Your task to perform on an android device: open app "ZOOM Cloud Meetings" (install if not already installed) Image 0: 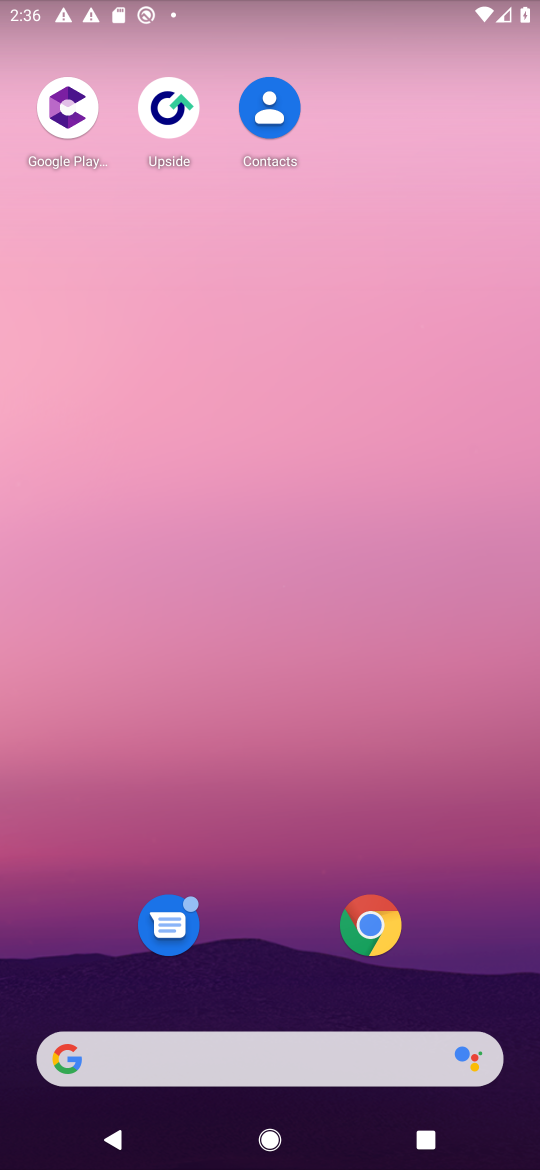
Step 0: drag from (452, 727) to (416, 6)
Your task to perform on an android device: open app "ZOOM Cloud Meetings" (install if not already installed) Image 1: 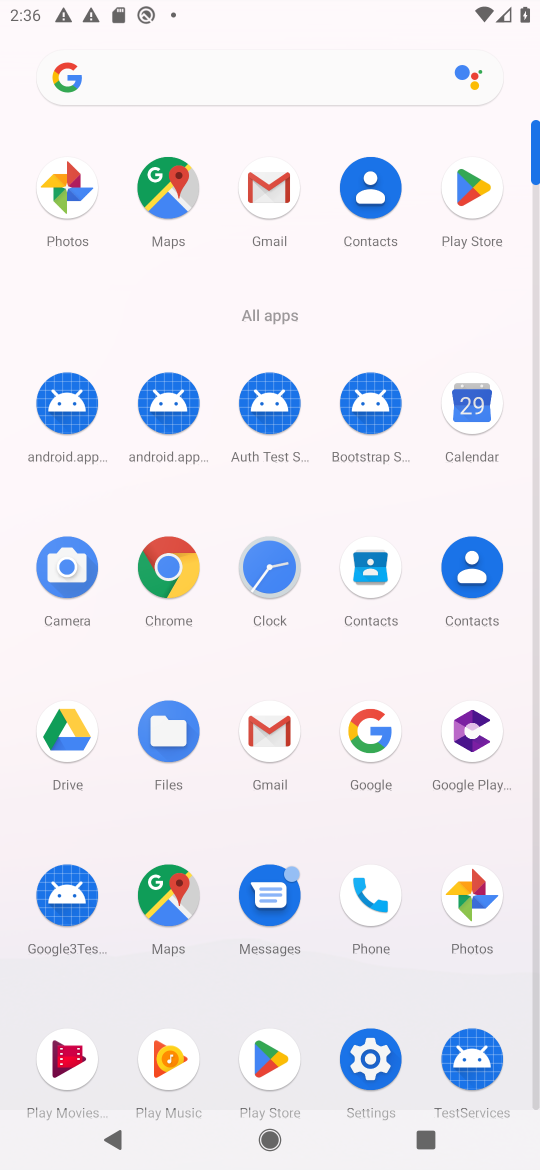
Step 1: click (482, 185)
Your task to perform on an android device: open app "ZOOM Cloud Meetings" (install if not already installed) Image 2: 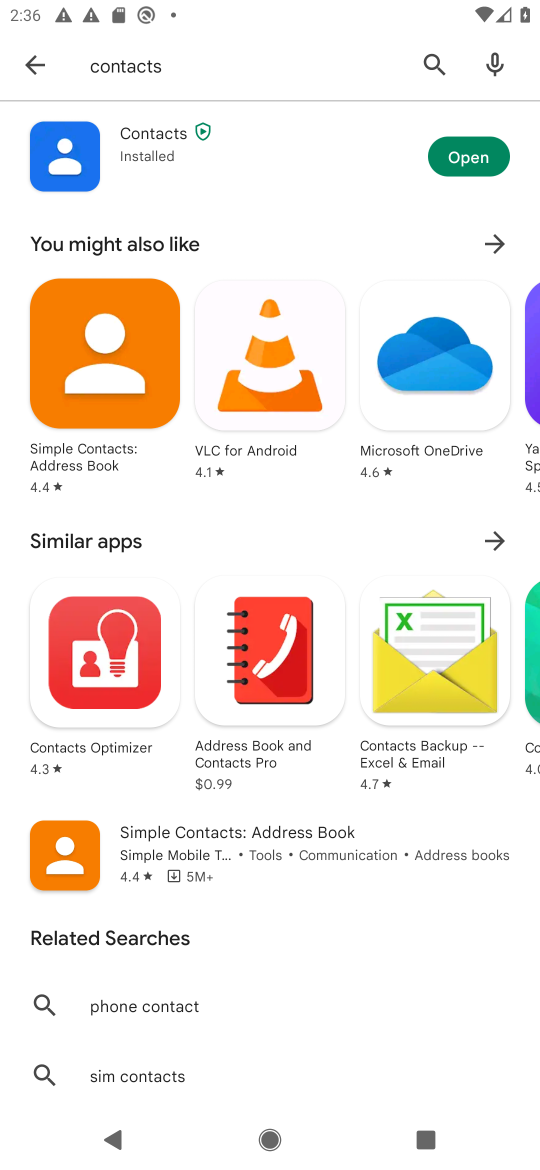
Step 2: click (427, 66)
Your task to perform on an android device: open app "ZOOM Cloud Meetings" (install if not already installed) Image 3: 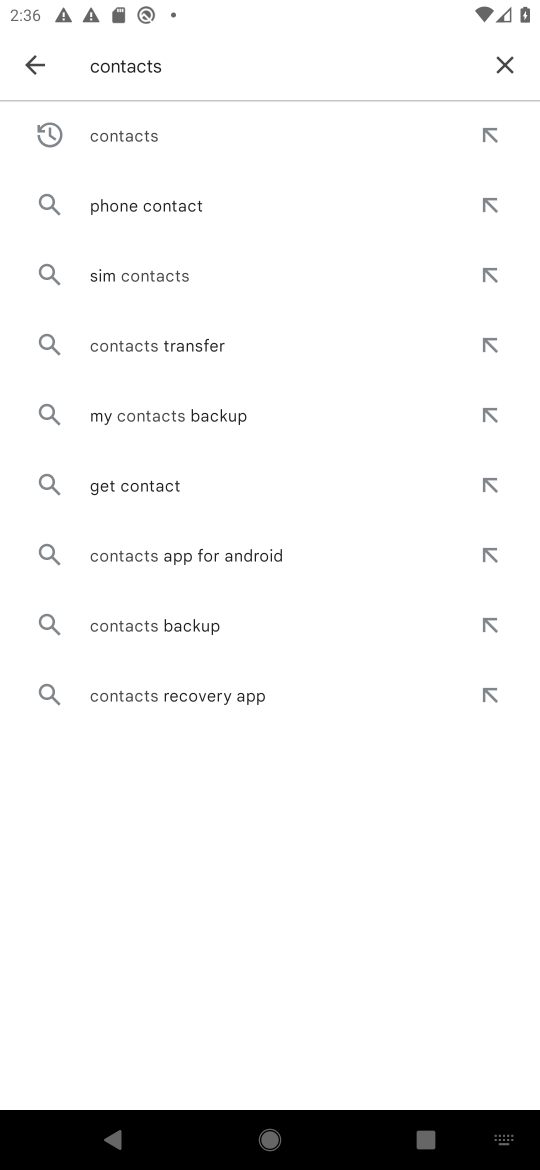
Step 3: click (502, 70)
Your task to perform on an android device: open app "ZOOM Cloud Meetings" (install if not already installed) Image 4: 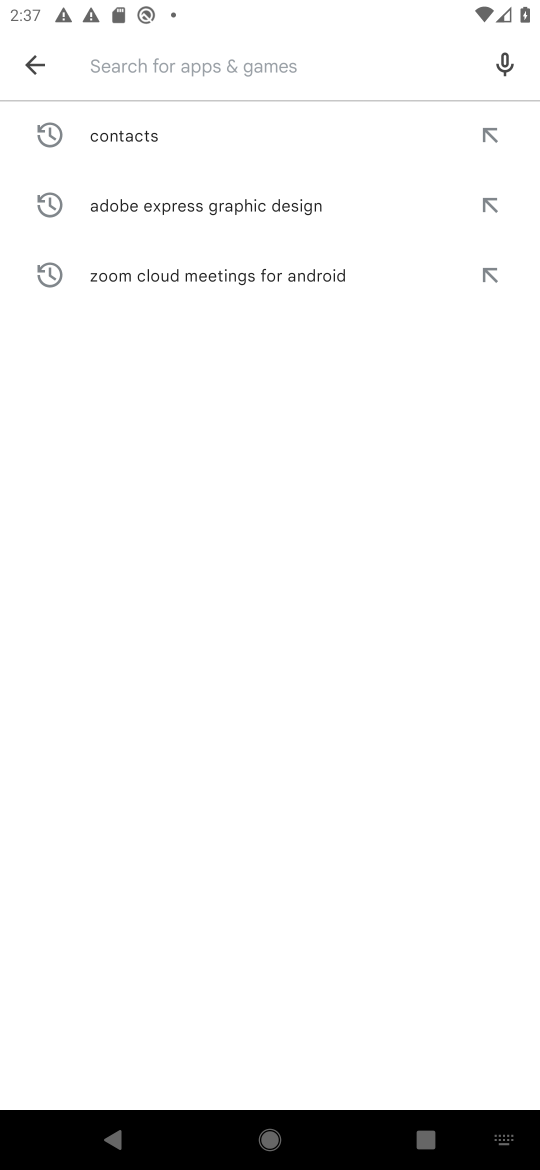
Step 4: type "ZOOM Cloud Meetings"
Your task to perform on an android device: open app "ZOOM Cloud Meetings" (install if not already installed) Image 5: 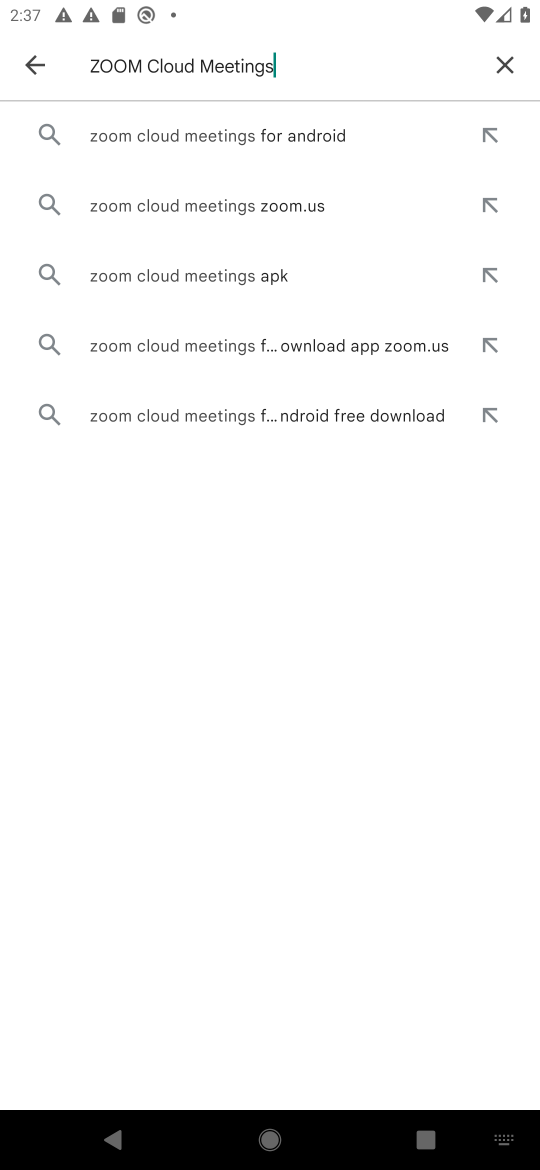
Step 5: click (223, 140)
Your task to perform on an android device: open app "ZOOM Cloud Meetings" (install if not already installed) Image 6: 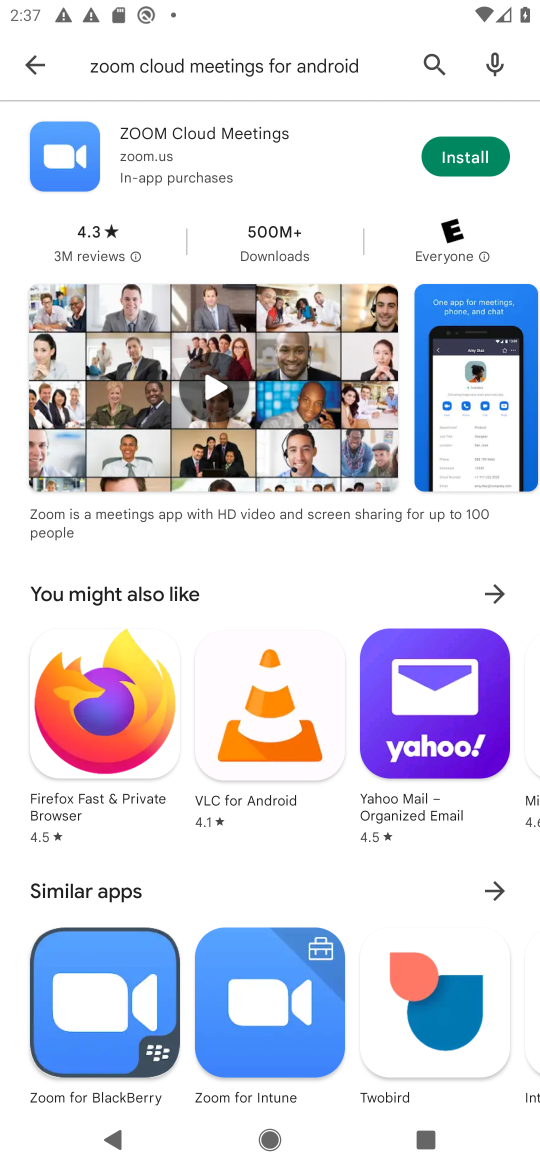
Step 6: click (456, 149)
Your task to perform on an android device: open app "ZOOM Cloud Meetings" (install if not already installed) Image 7: 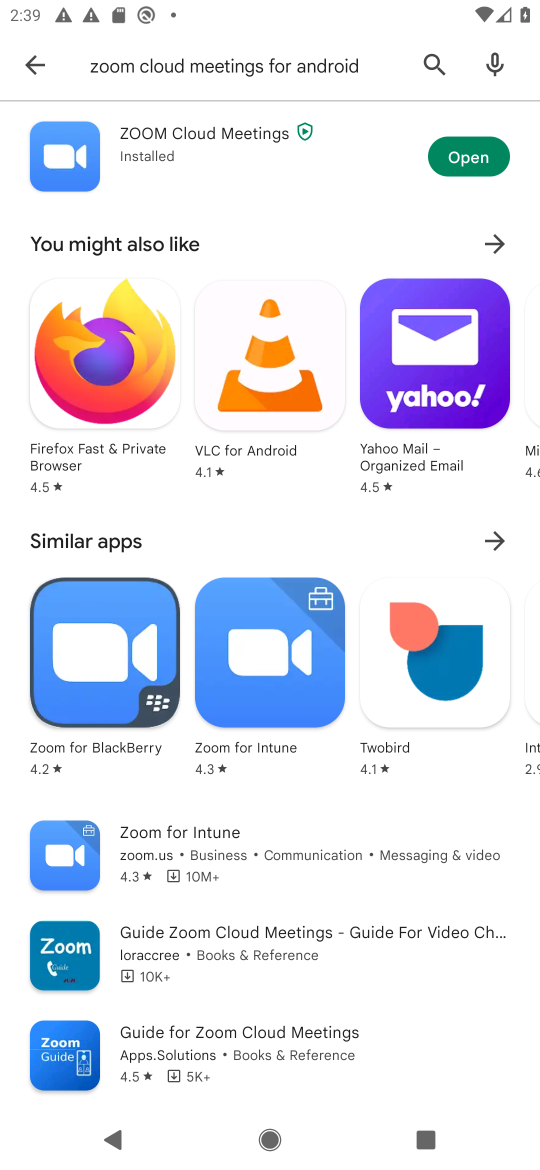
Step 7: click (452, 167)
Your task to perform on an android device: open app "ZOOM Cloud Meetings" (install if not already installed) Image 8: 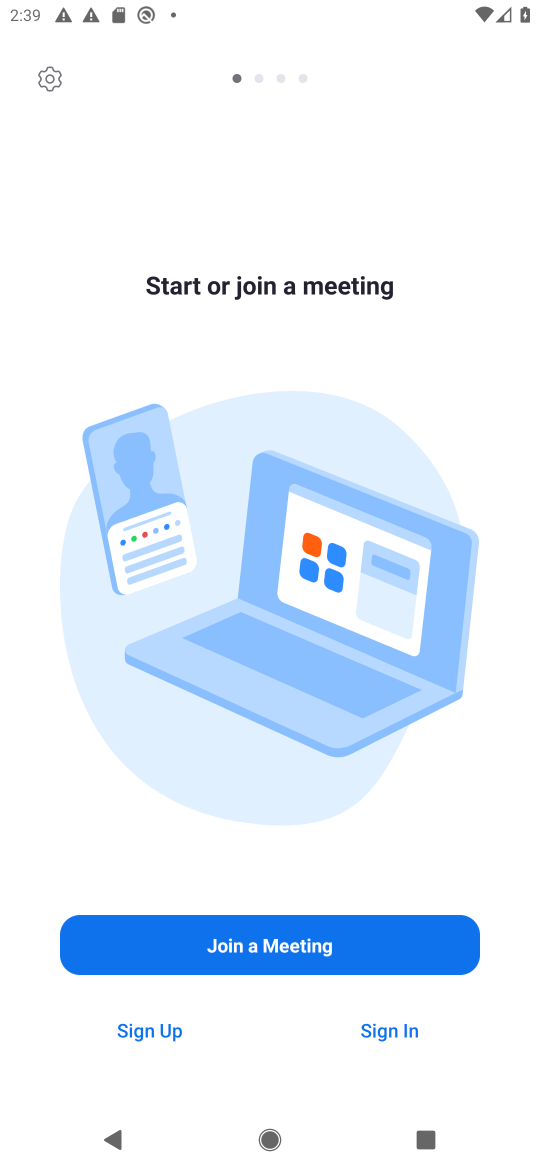
Step 8: task complete